Your task to perform on an android device: turn vacation reply on in the gmail app Image 0: 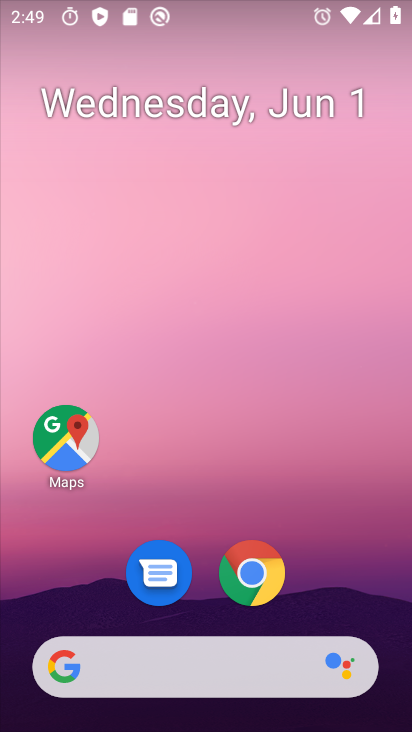
Step 0: drag from (213, 631) to (192, 267)
Your task to perform on an android device: turn vacation reply on in the gmail app Image 1: 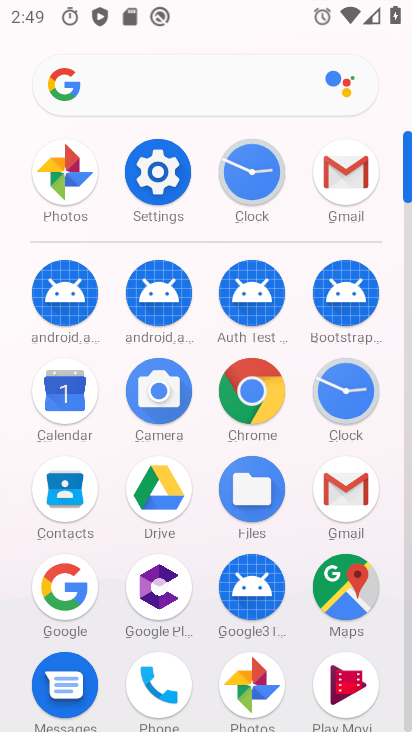
Step 1: click (335, 190)
Your task to perform on an android device: turn vacation reply on in the gmail app Image 2: 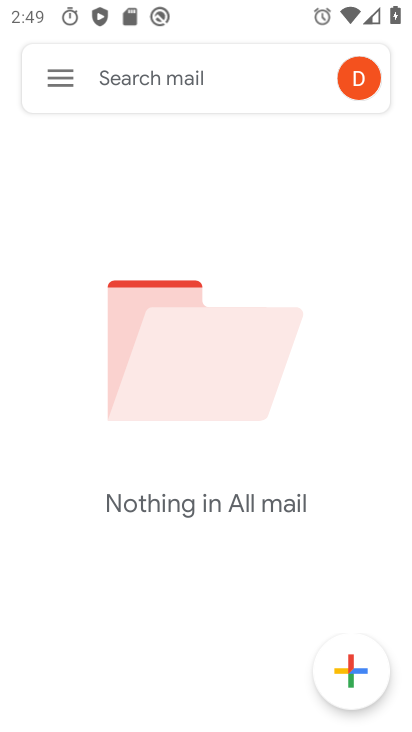
Step 2: click (71, 91)
Your task to perform on an android device: turn vacation reply on in the gmail app Image 3: 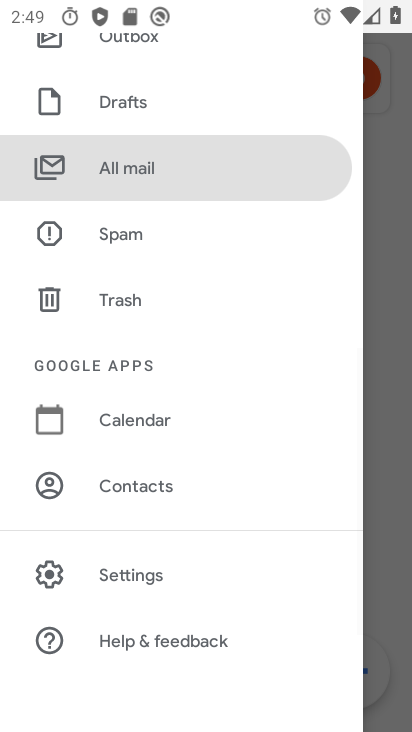
Step 3: click (151, 569)
Your task to perform on an android device: turn vacation reply on in the gmail app Image 4: 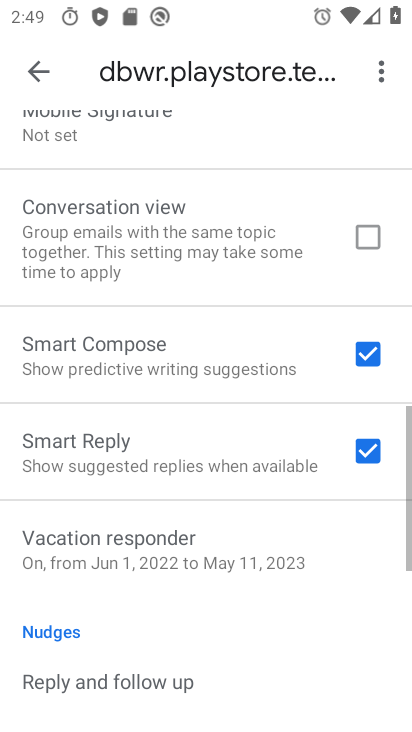
Step 4: drag from (153, 567) to (186, 321)
Your task to perform on an android device: turn vacation reply on in the gmail app Image 5: 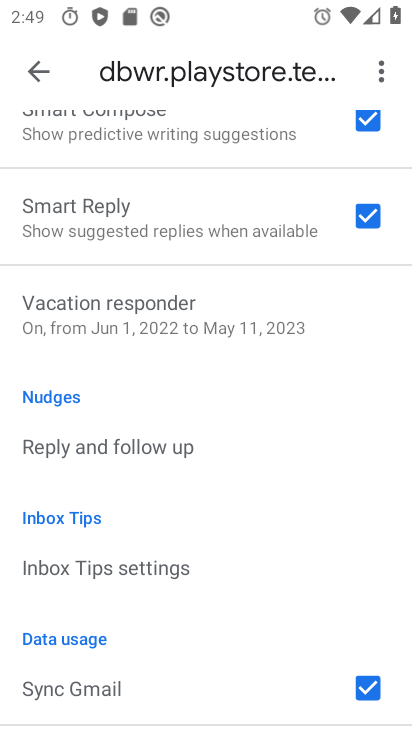
Step 5: drag from (199, 596) to (188, 294)
Your task to perform on an android device: turn vacation reply on in the gmail app Image 6: 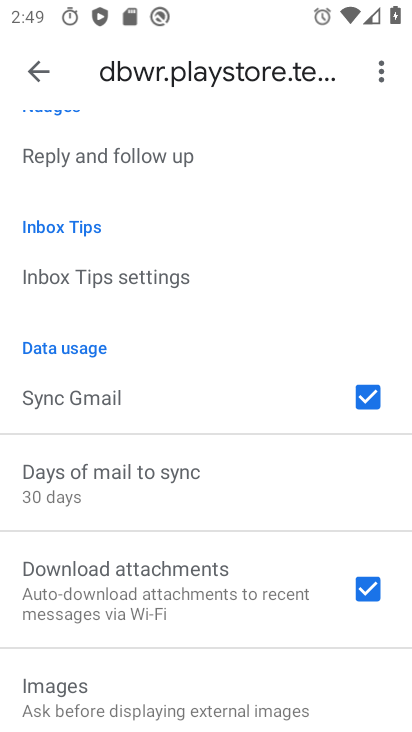
Step 6: drag from (185, 615) to (204, 369)
Your task to perform on an android device: turn vacation reply on in the gmail app Image 7: 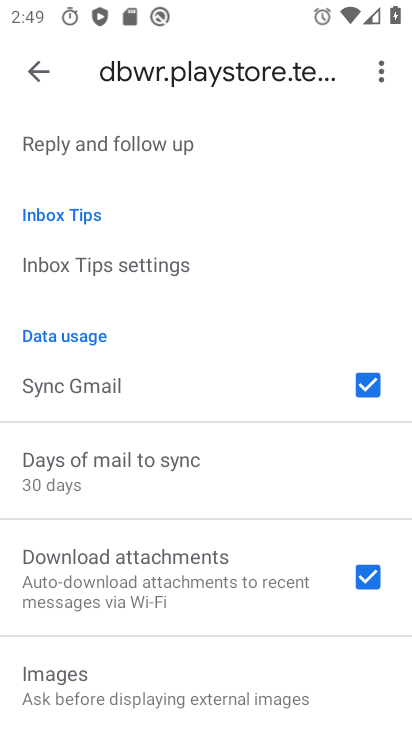
Step 7: drag from (177, 280) to (219, 505)
Your task to perform on an android device: turn vacation reply on in the gmail app Image 8: 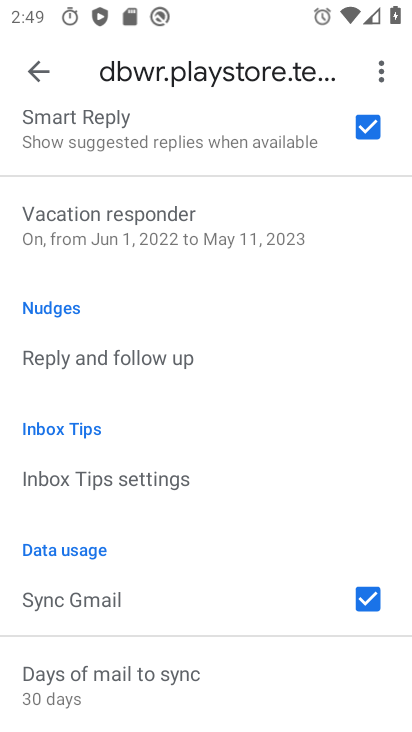
Step 8: click (226, 242)
Your task to perform on an android device: turn vacation reply on in the gmail app Image 9: 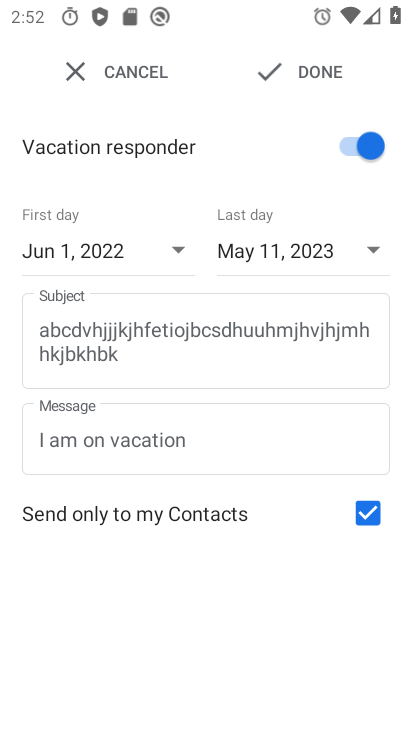
Step 9: task complete